Your task to perform on an android device: uninstall "WhatsApp Messenger" Image 0: 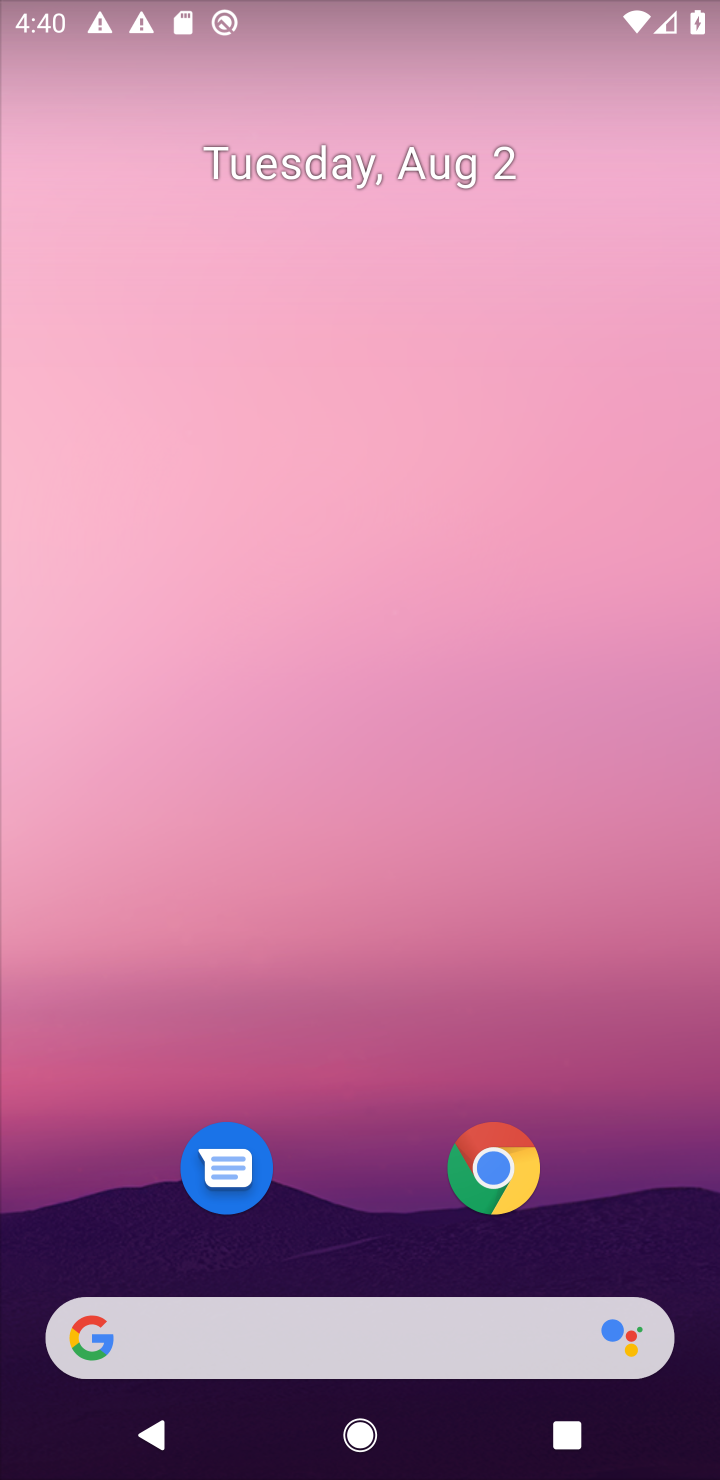
Step 0: drag from (335, 1084) to (408, 491)
Your task to perform on an android device: uninstall "WhatsApp Messenger" Image 1: 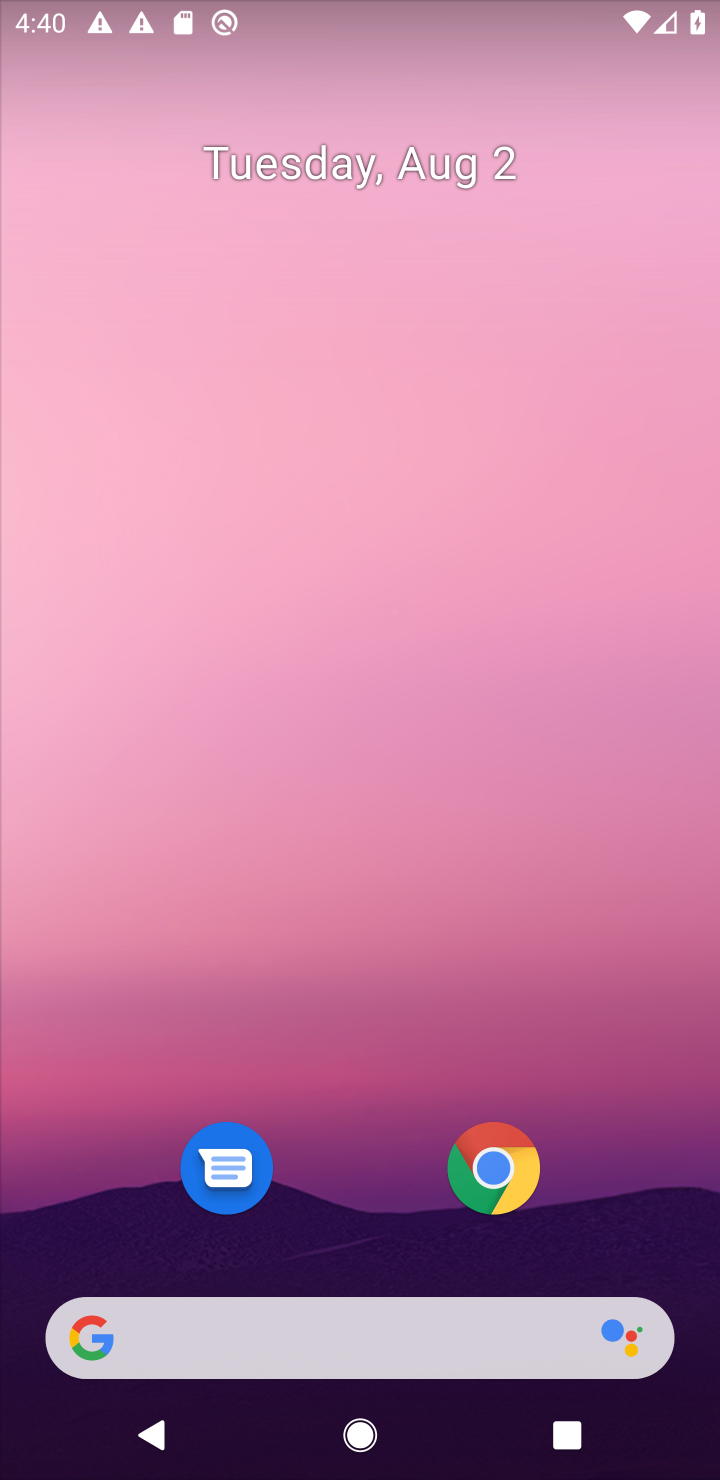
Step 1: drag from (357, 708) to (492, 8)
Your task to perform on an android device: uninstall "WhatsApp Messenger" Image 2: 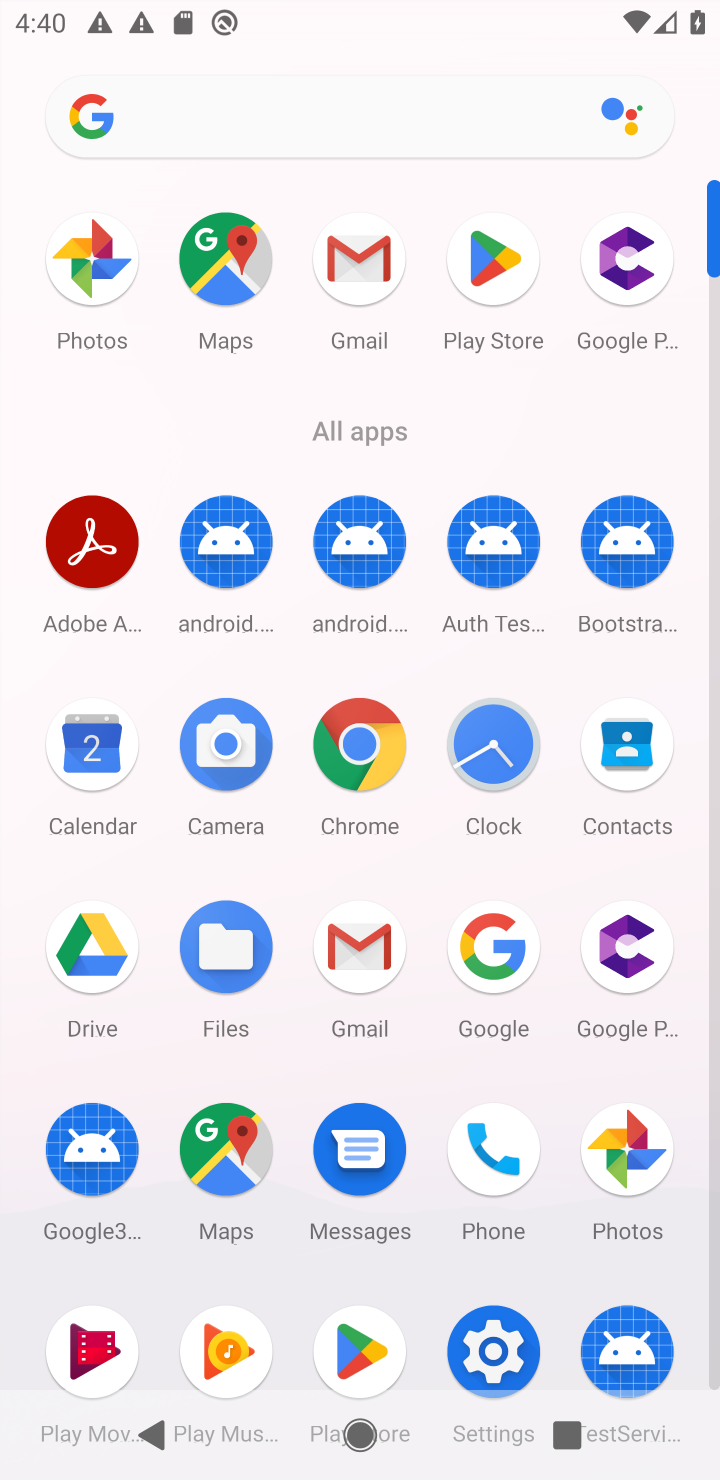
Step 2: click (350, 1341)
Your task to perform on an android device: uninstall "WhatsApp Messenger" Image 3: 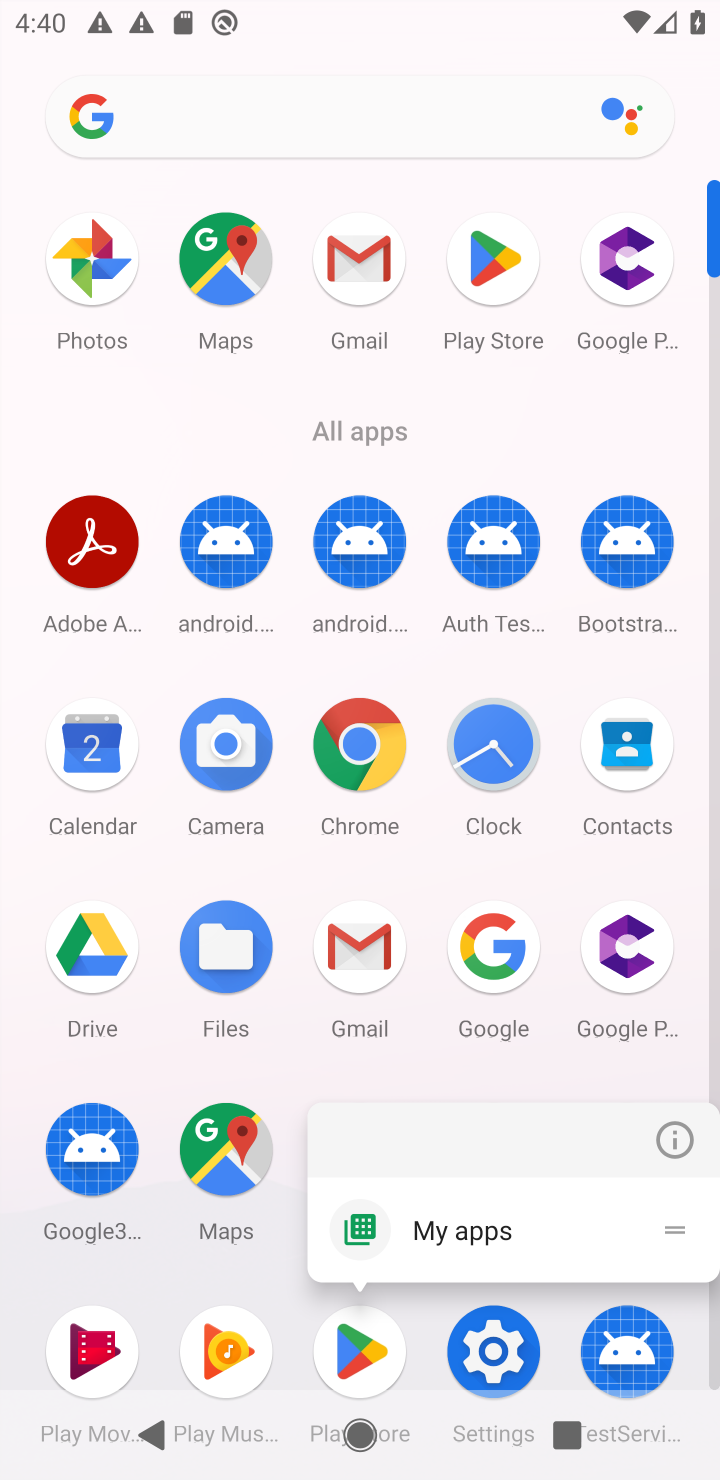
Step 3: click (372, 1333)
Your task to perform on an android device: uninstall "WhatsApp Messenger" Image 4: 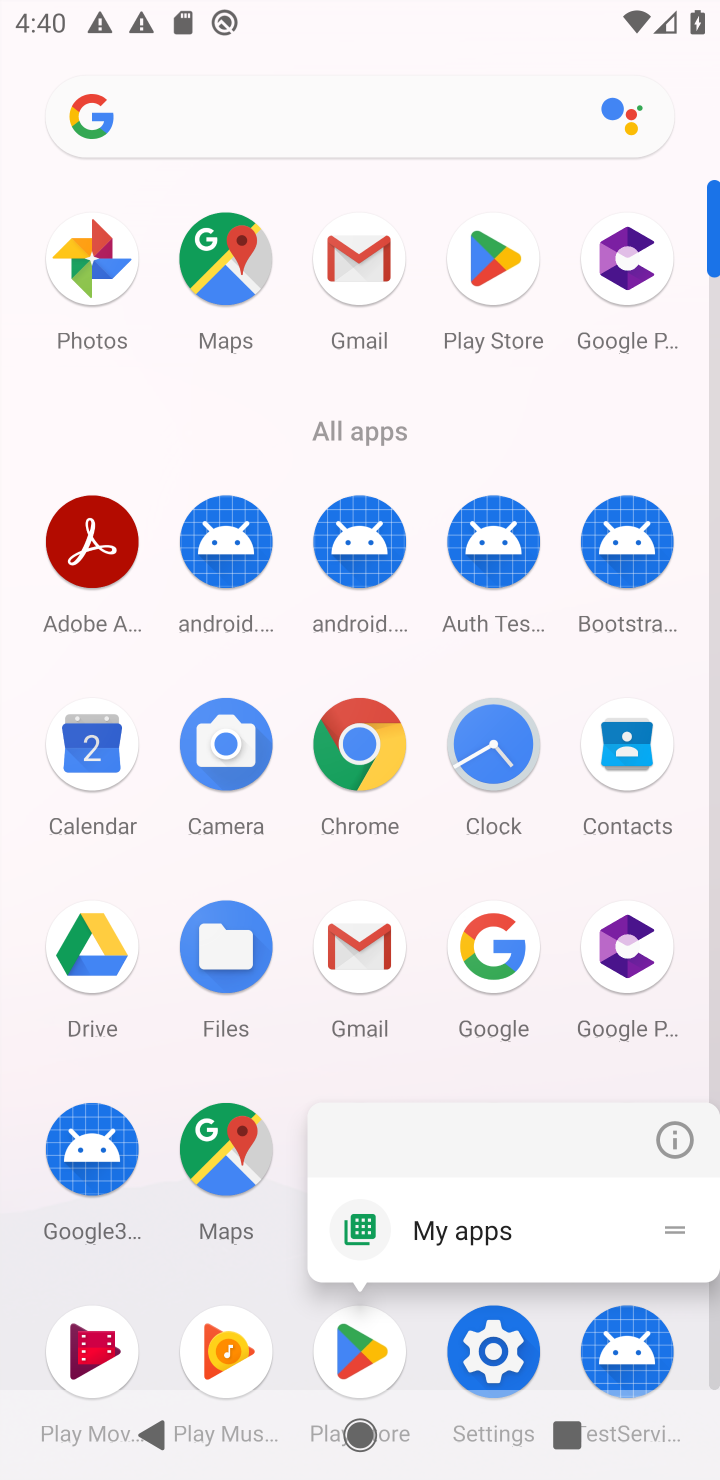
Step 4: click (356, 1331)
Your task to perform on an android device: uninstall "WhatsApp Messenger" Image 5: 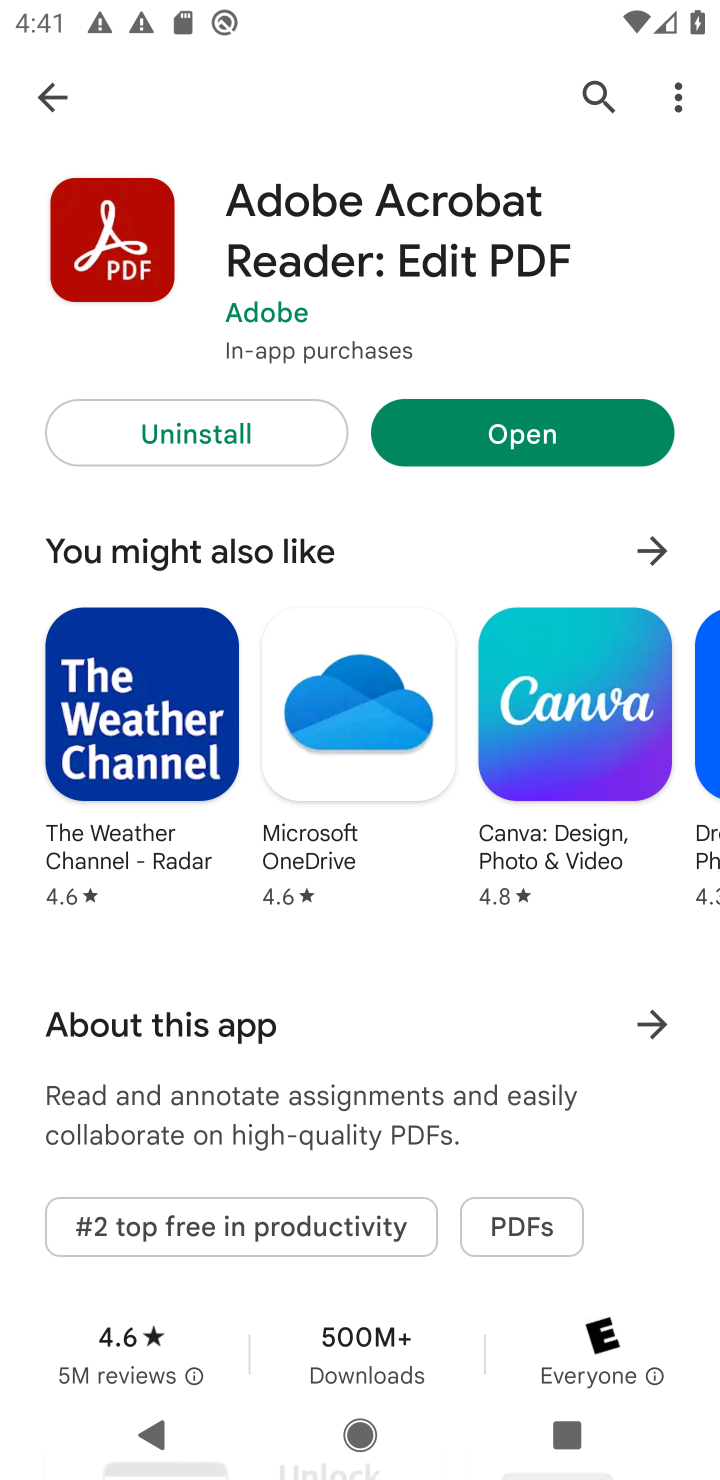
Step 5: click (47, 90)
Your task to perform on an android device: uninstall "WhatsApp Messenger" Image 6: 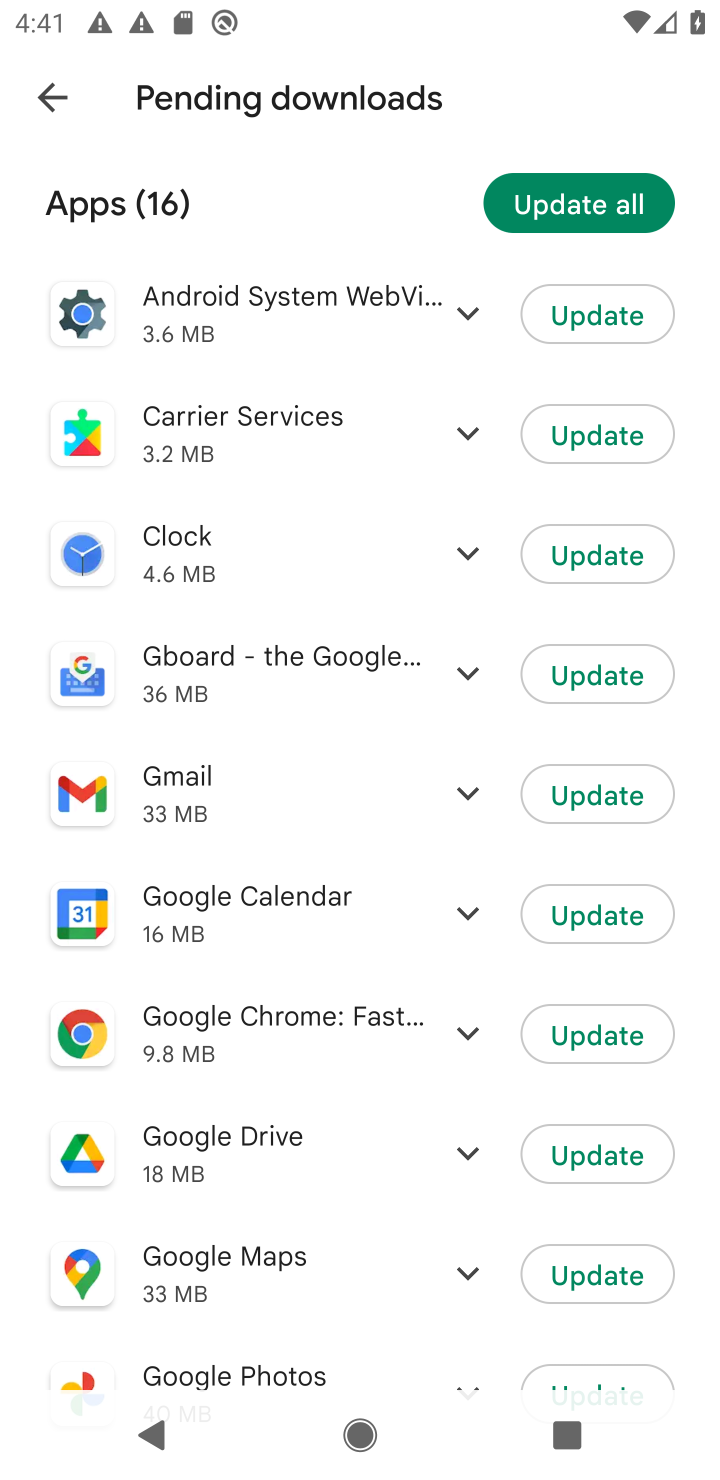
Step 6: click (44, 92)
Your task to perform on an android device: uninstall "WhatsApp Messenger" Image 7: 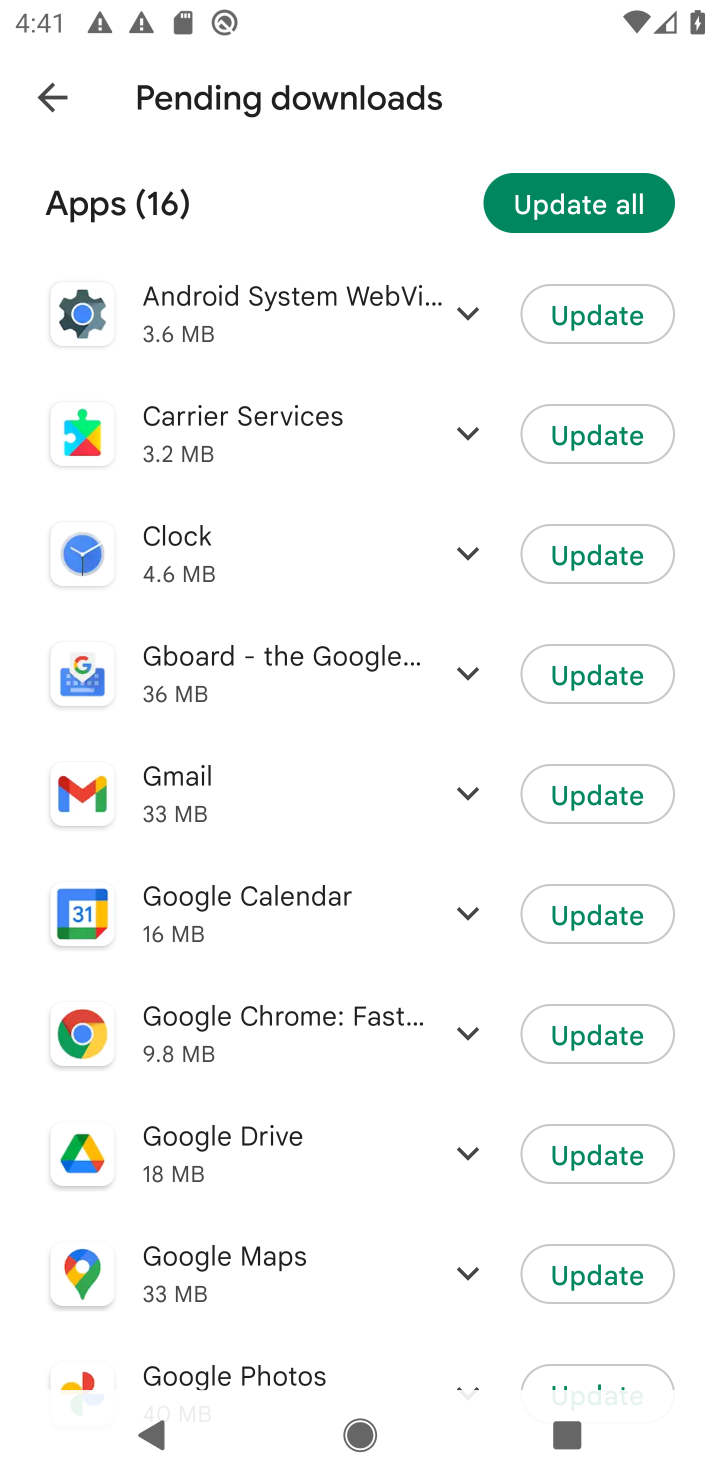
Step 7: click (59, 109)
Your task to perform on an android device: uninstall "WhatsApp Messenger" Image 8: 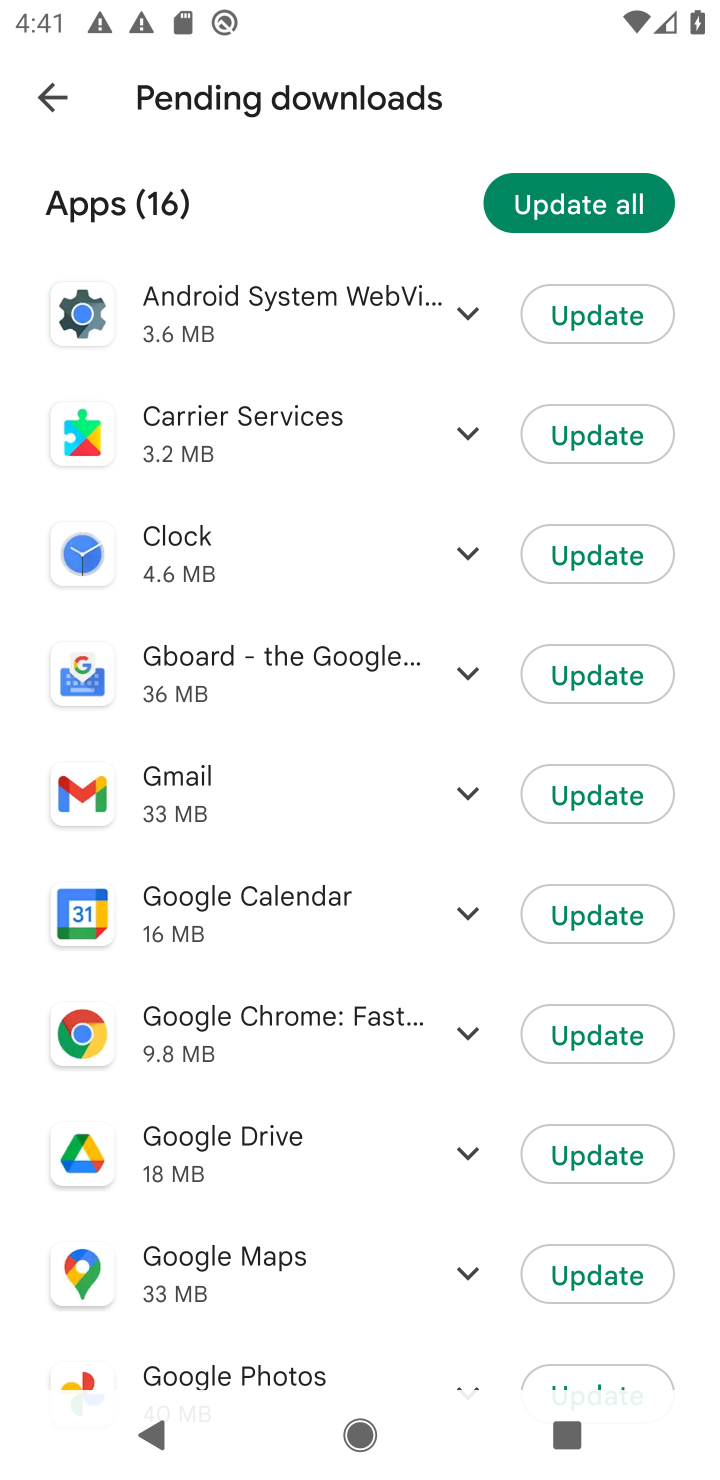
Step 8: click (48, 88)
Your task to perform on an android device: uninstall "WhatsApp Messenger" Image 9: 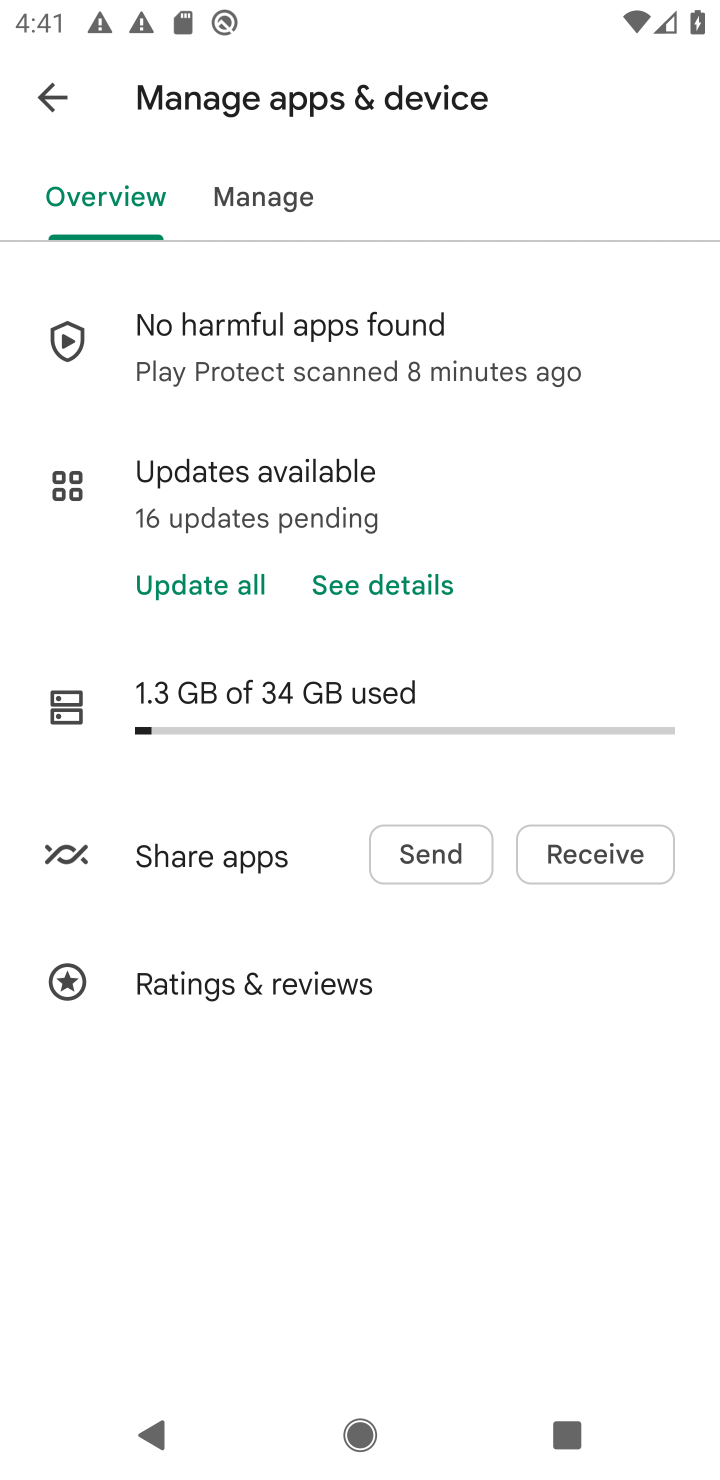
Step 9: click (42, 82)
Your task to perform on an android device: uninstall "WhatsApp Messenger" Image 10: 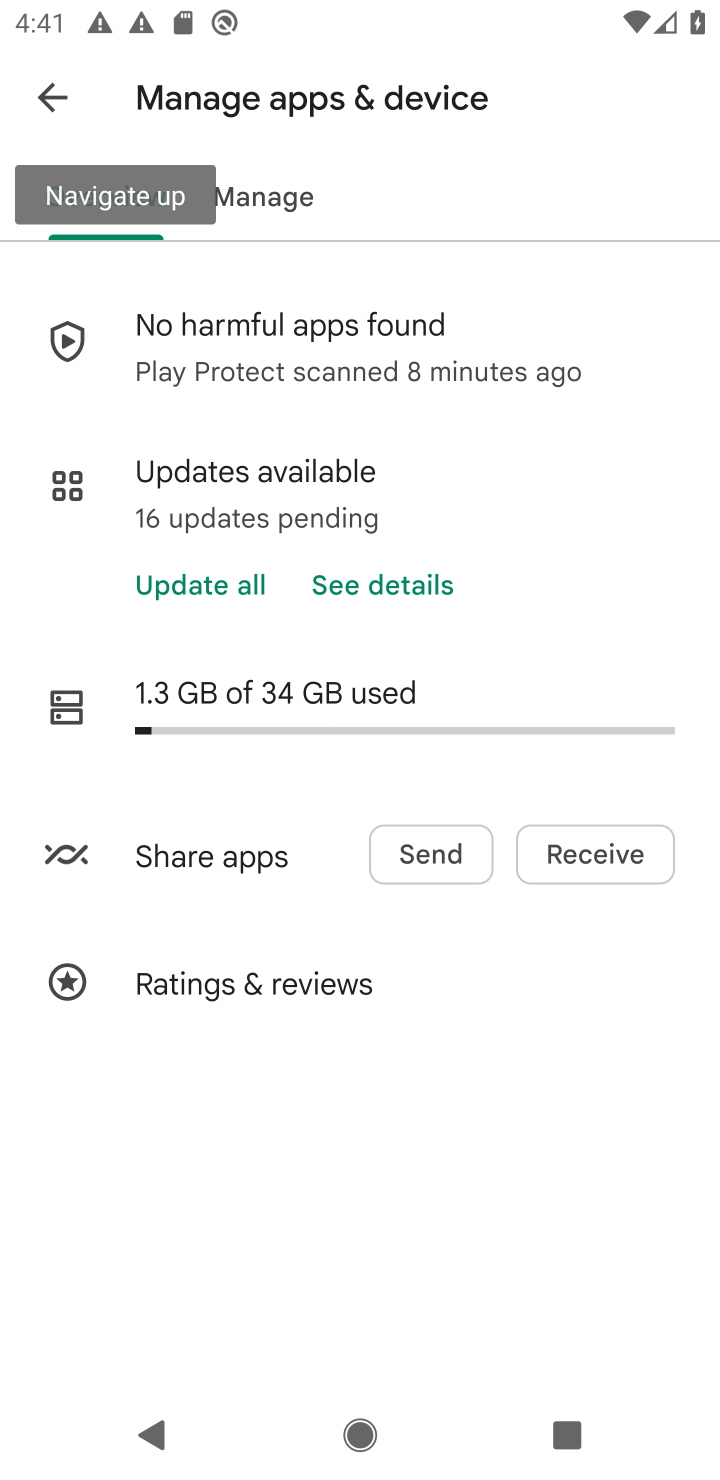
Step 10: click (49, 102)
Your task to perform on an android device: uninstall "WhatsApp Messenger" Image 11: 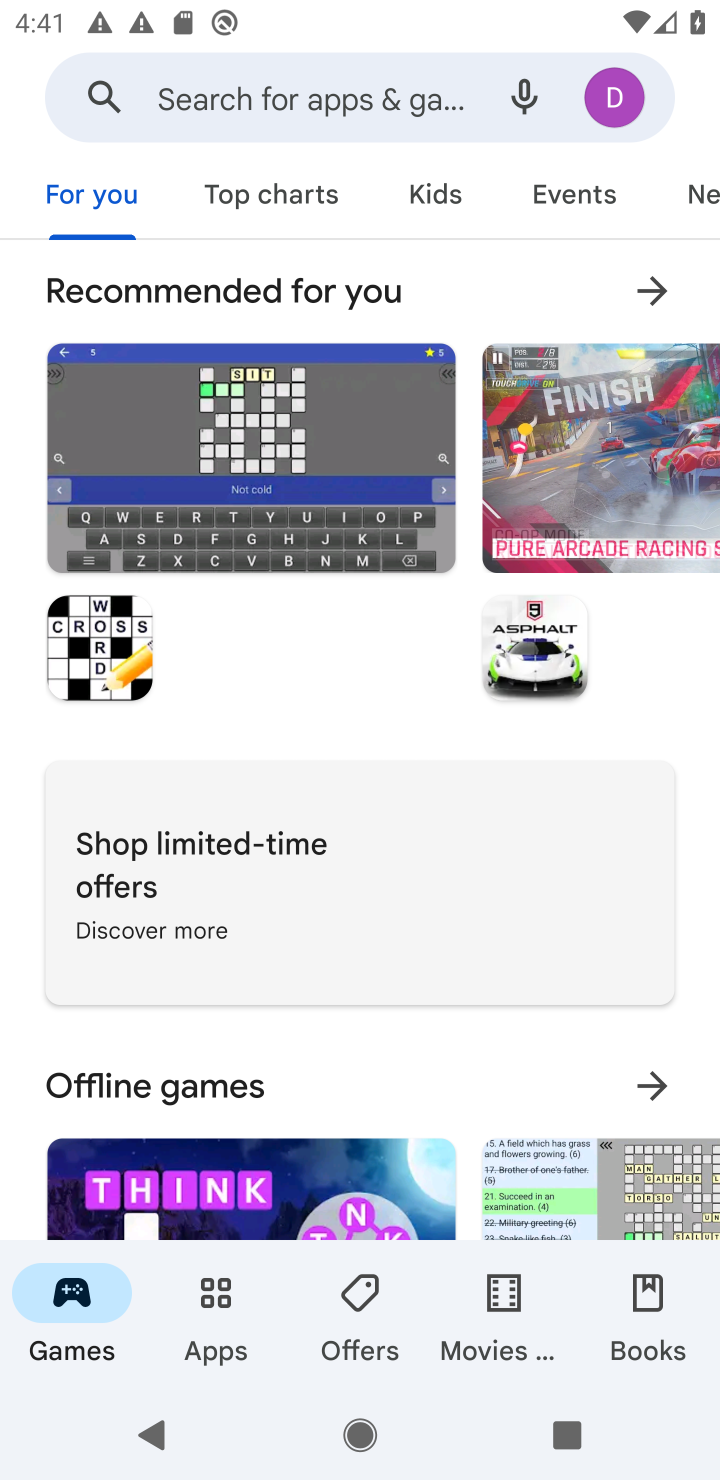
Step 11: click (278, 106)
Your task to perform on an android device: uninstall "WhatsApp Messenger" Image 12: 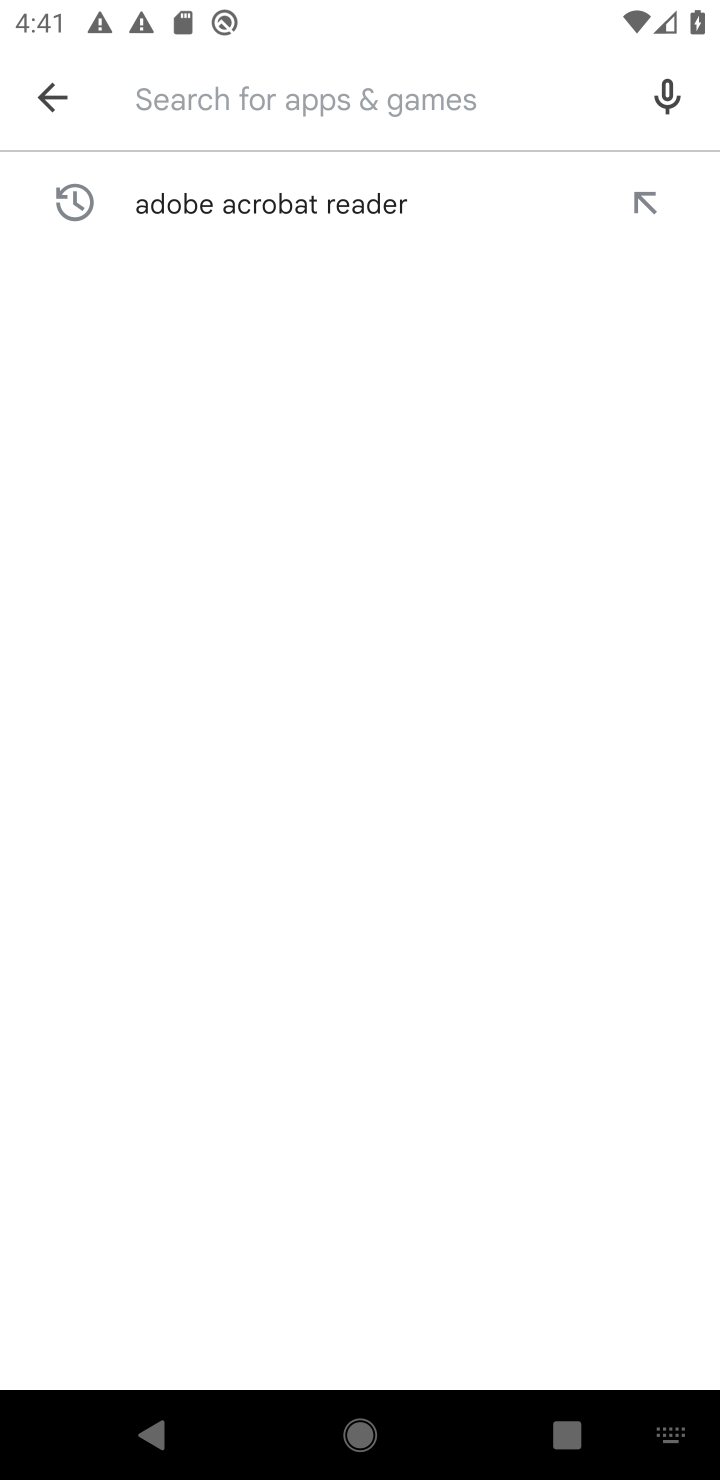
Step 12: type "whatsapp messenger"
Your task to perform on an android device: uninstall "WhatsApp Messenger" Image 13: 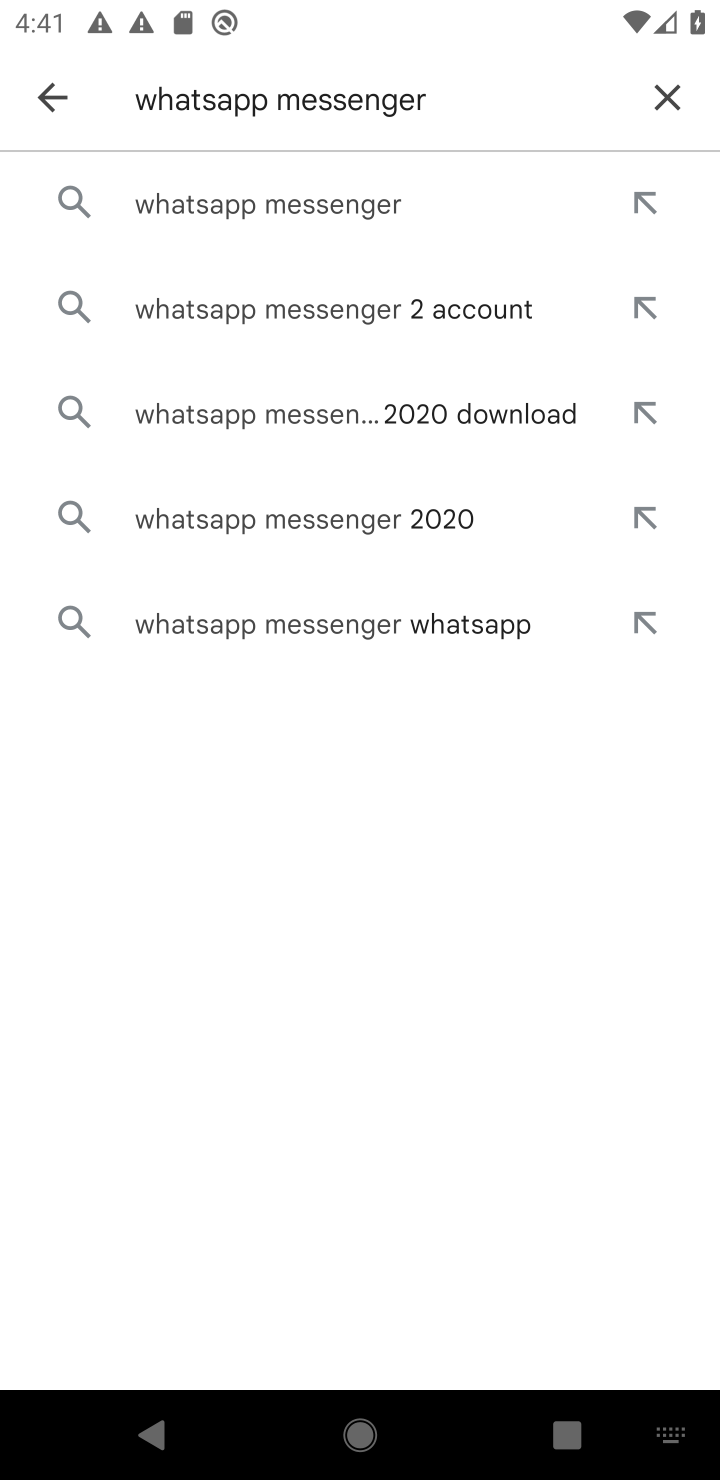
Step 13: click (402, 122)
Your task to perform on an android device: uninstall "WhatsApp Messenger" Image 14: 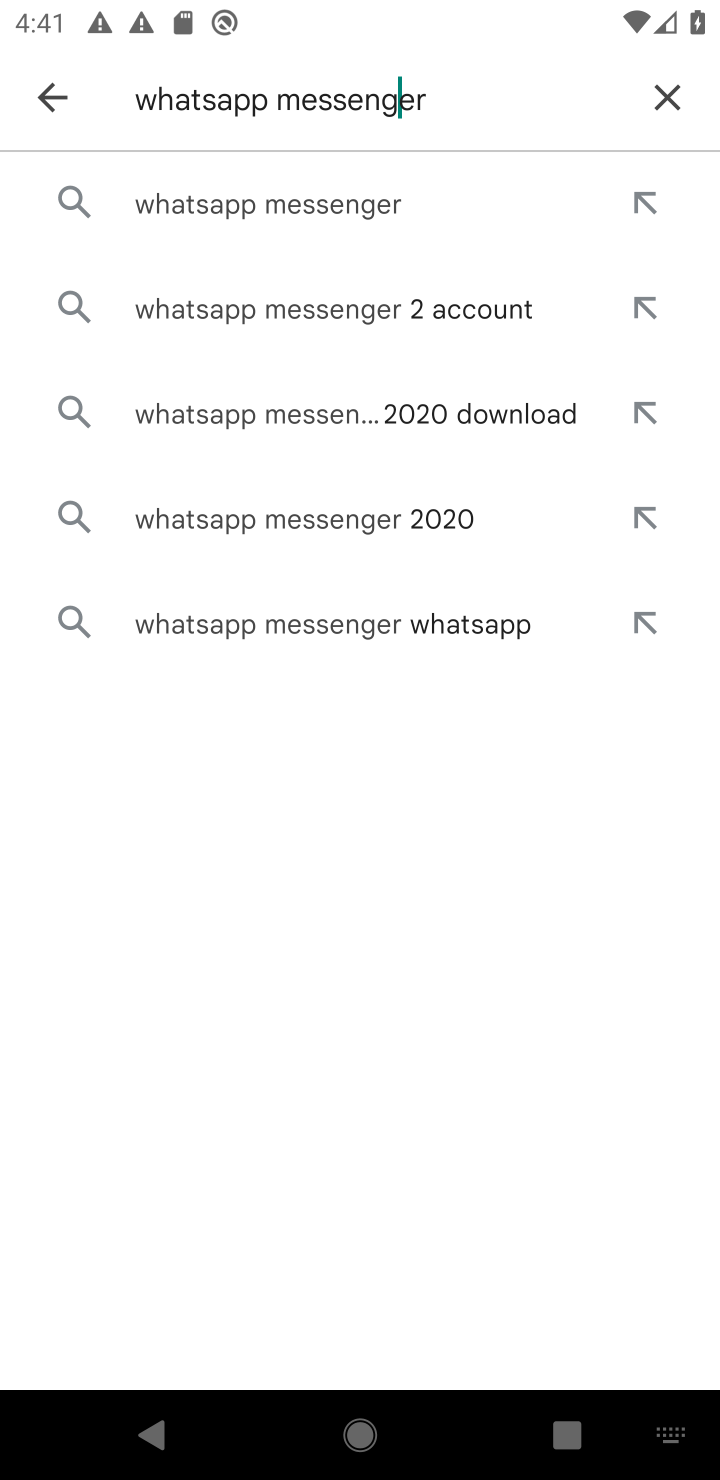
Step 14: click (354, 203)
Your task to perform on an android device: uninstall "WhatsApp Messenger" Image 15: 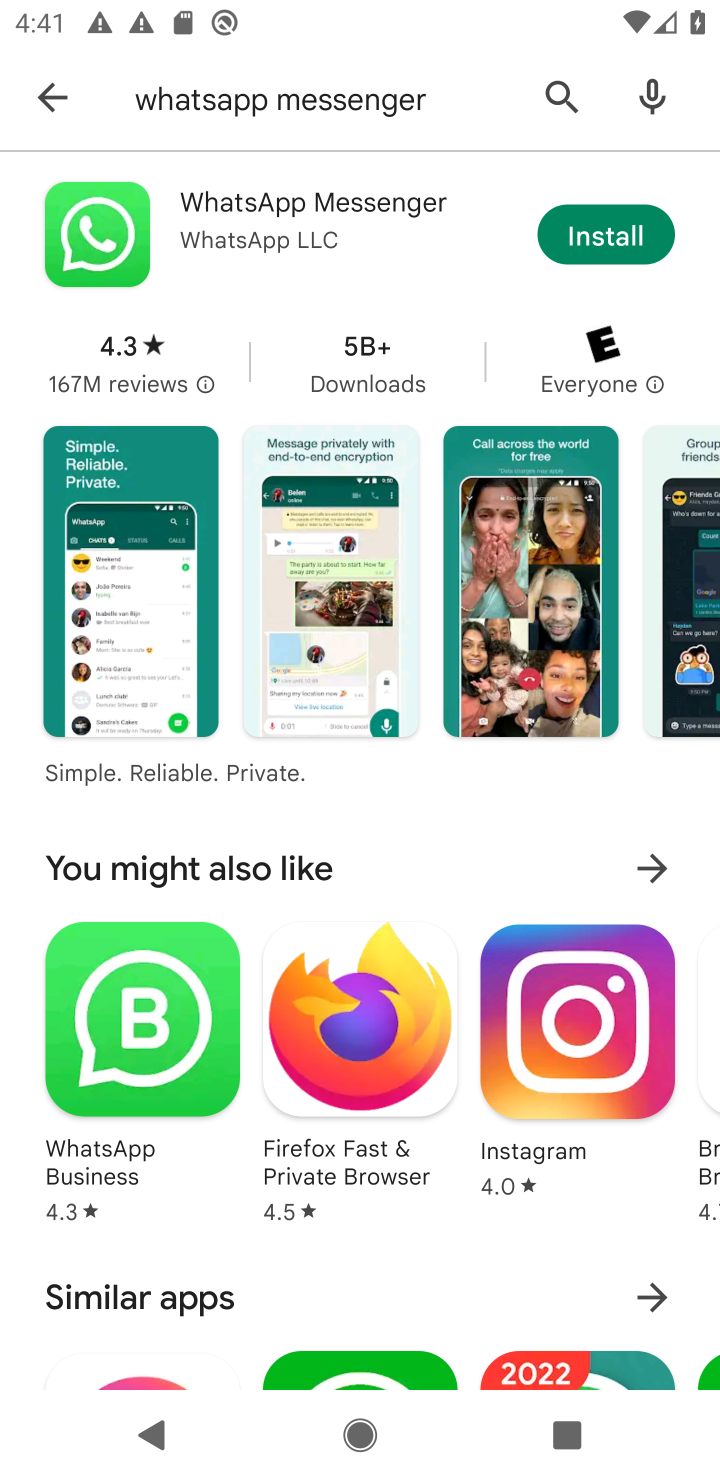
Step 15: task complete